Your task to perform on an android device: Set the phone to "Do not disturb". Image 0: 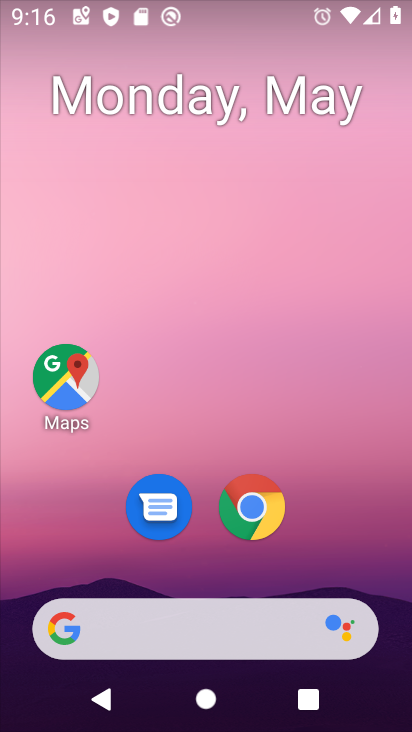
Step 0: drag from (192, 561) to (188, 8)
Your task to perform on an android device: Set the phone to "Do not disturb". Image 1: 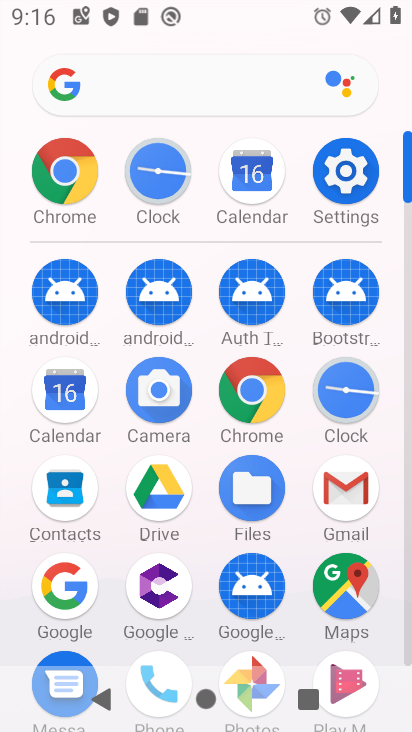
Step 1: click (344, 188)
Your task to perform on an android device: Set the phone to "Do not disturb". Image 2: 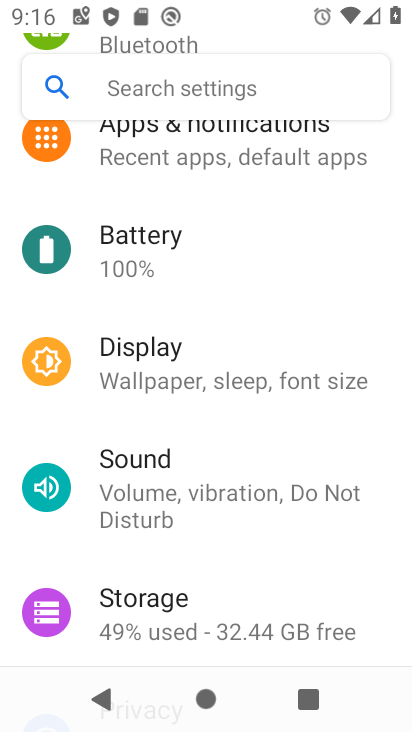
Step 2: click (174, 508)
Your task to perform on an android device: Set the phone to "Do not disturb". Image 3: 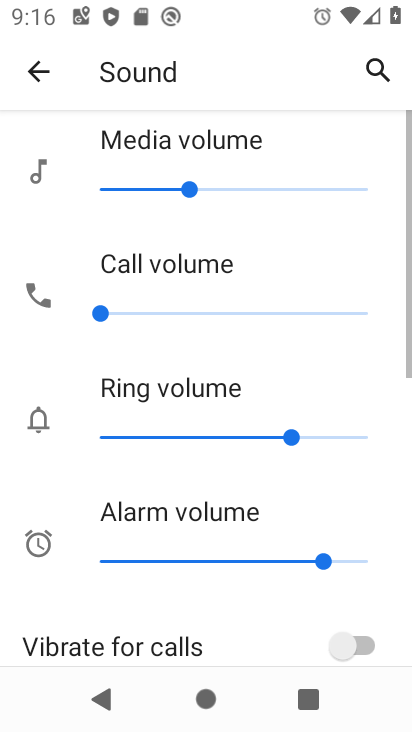
Step 3: drag from (155, 575) to (263, 229)
Your task to perform on an android device: Set the phone to "Do not disturb". Image 4: 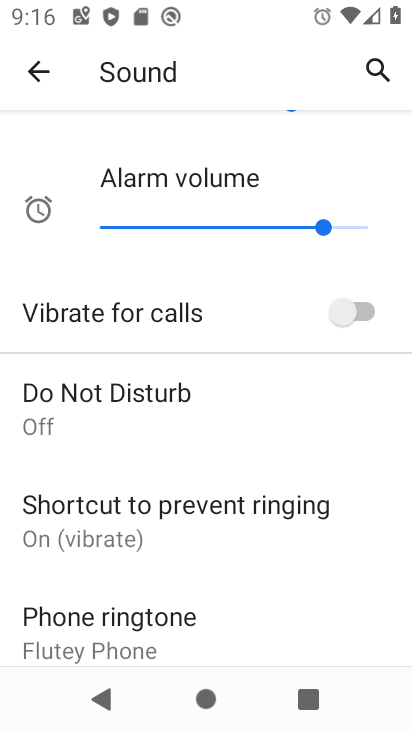
Step 4: click (120, 424)
Your task to perform on an android device: Set the phone to "Do not disturb". Image 5: 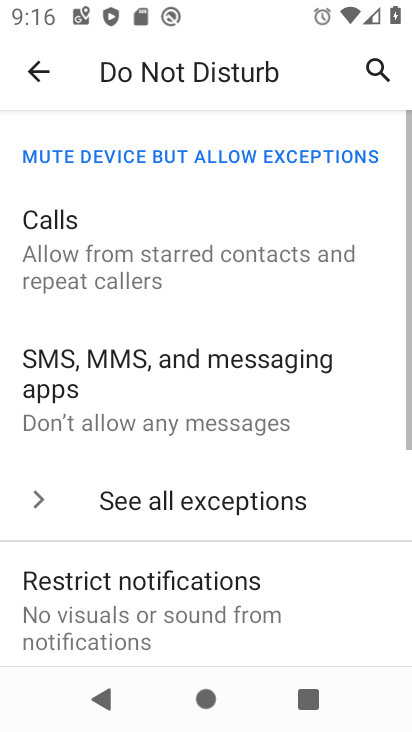
Step 5: drag from (147, 525) to (262, 93)
Your task to perform on an android device: Set the phone to "Do not disturb". Image 6: 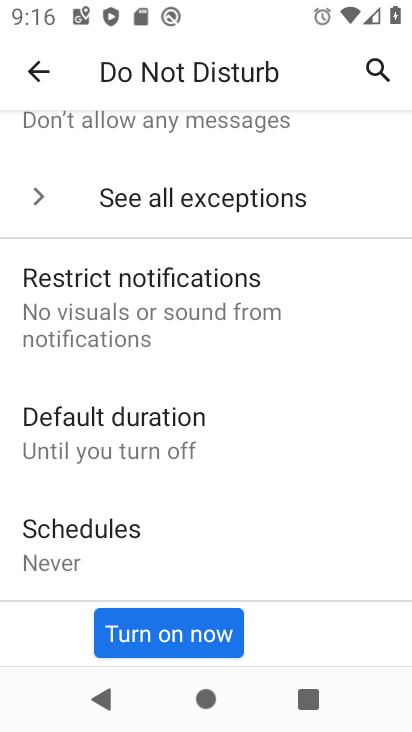
Step 6: click (150, 645)
Your task to perform on an android device: Set the phone to "Do not disturb". Image 7: 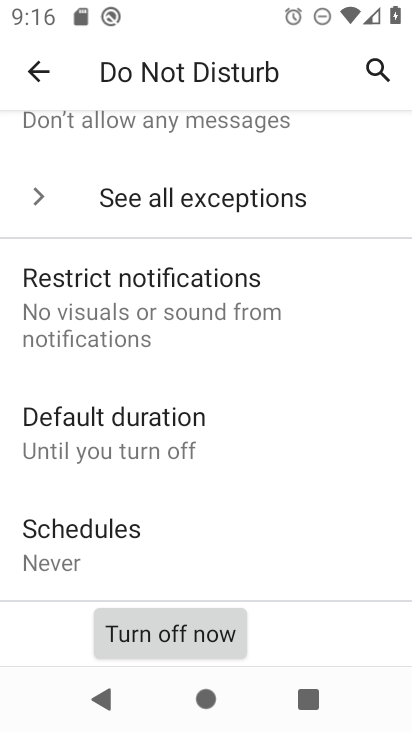
Step 7: task complete